Your task to perform on an android device: Open calendar and show me the third week of next month Image 0: 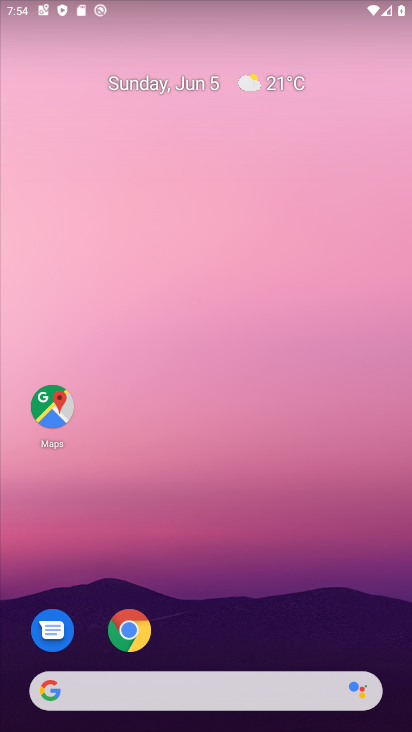
Step 0: drag from (245, 645) to (170, 0)
Your task to perform on an android device: Open calendar and show me the third week of next month Image 1: 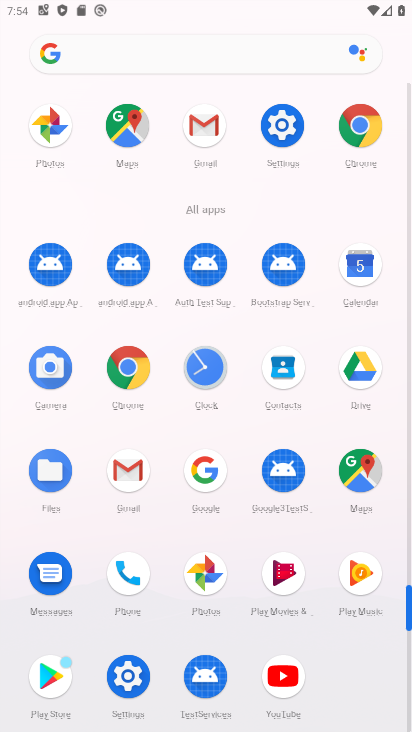
Step 1: click (350, 261)
Your task to perform on an android device: Open calendar and show me the third week of next month Image 2: 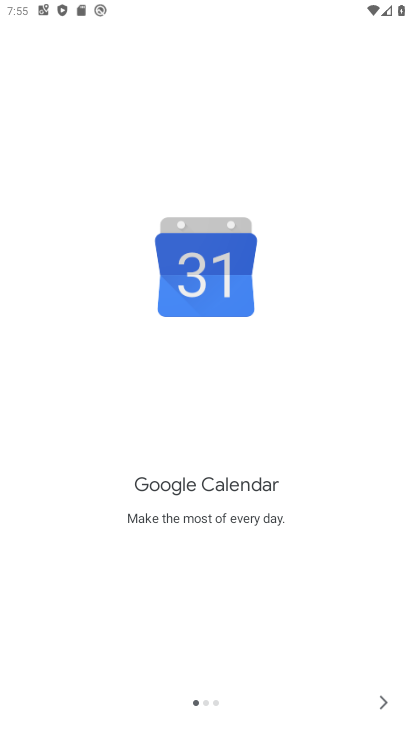
Step 2: click (380, 694)
Your task to perform on an android device: Open calendar and show me the third week of next month Image 3: 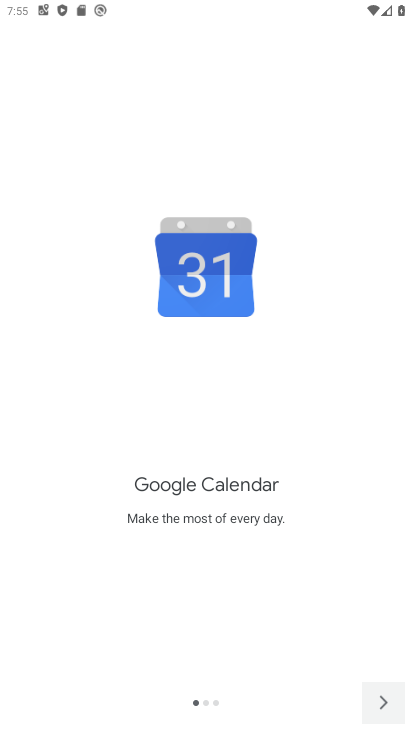
Step 3: click (380, 692)
Your task to perform on an android device: Open calendar and show me the third week of next month Image 4: 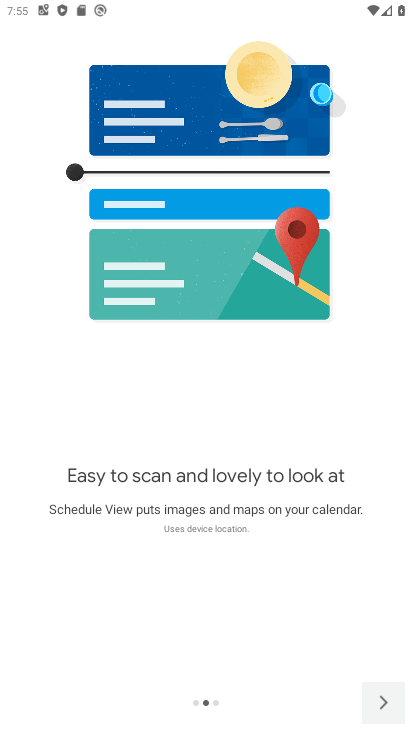
Step 4: click (380, 692)
Your task to perform on an android device: Open calendar and show me the third week of next month Image 5: 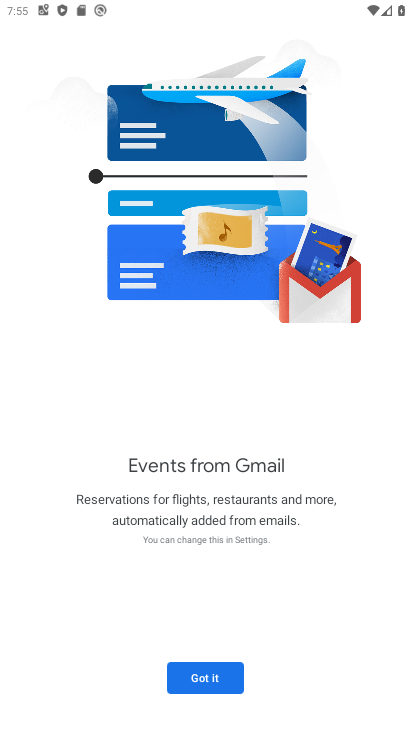
Step 5: click (380, 691)
Your task to perform on an android device: Open calendar and show me the third week of next month Image 6: 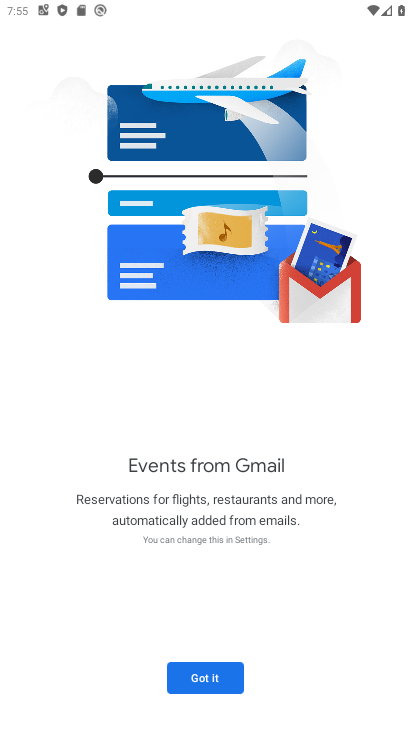
Step 6: click (188, 678)
Your task to perform on an android device: Open calendar and show me the third week of next month Image 7: 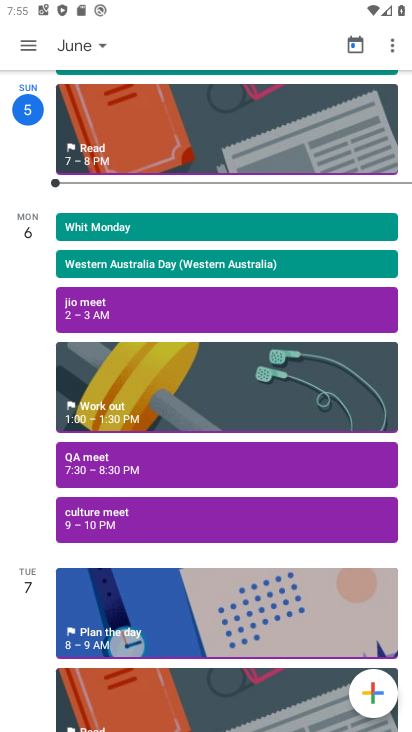
Step 7: click (15, 44)
Your task to perform on an android device: Open calendar and show me the third week of next month Image 8: 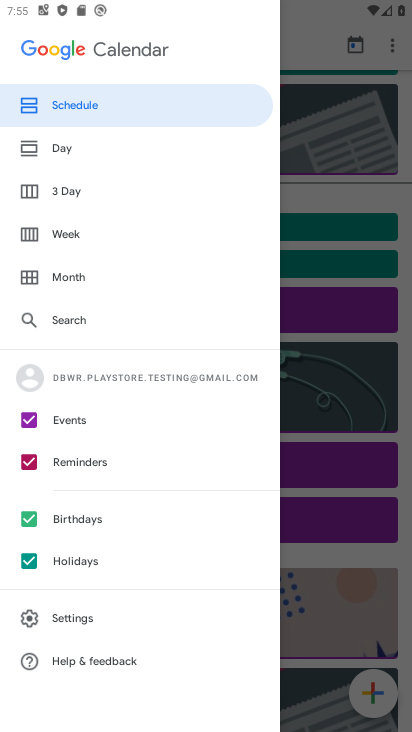
Step 8: click (89, 266)
Your task to perform on an android device: Open calendar and show me the third week of next month Image 9: 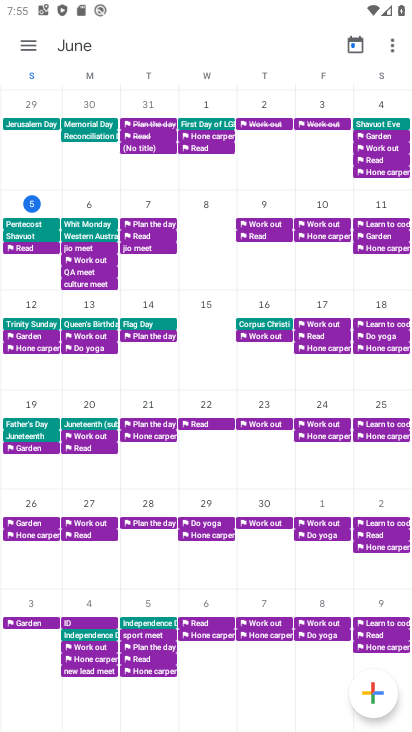
Step 9: task complete